Your task to perform on an android device: See recent photos Image 0: 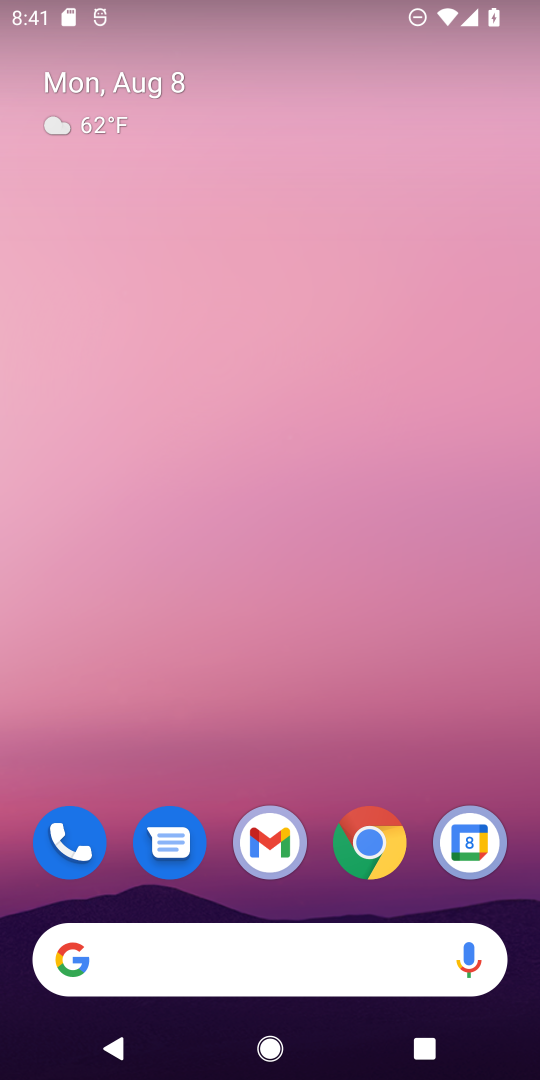
Step 0: drag from (315, 655) to (411, 8)
Your task to perform on an android device: See recent photos Image 1: 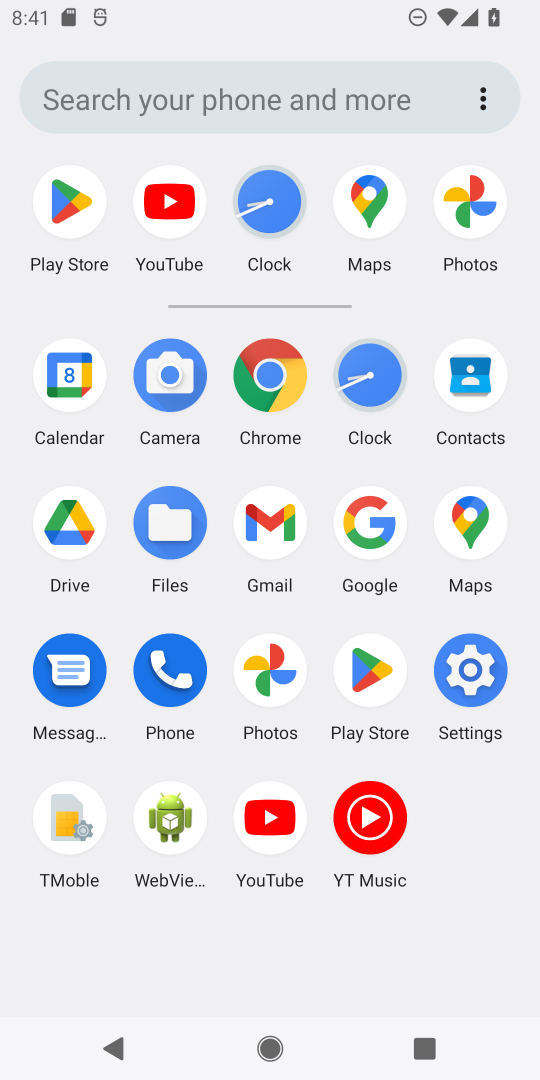
Step 1: click (271, 670)
Your task to perform on an android device: See recent photos Image 2: 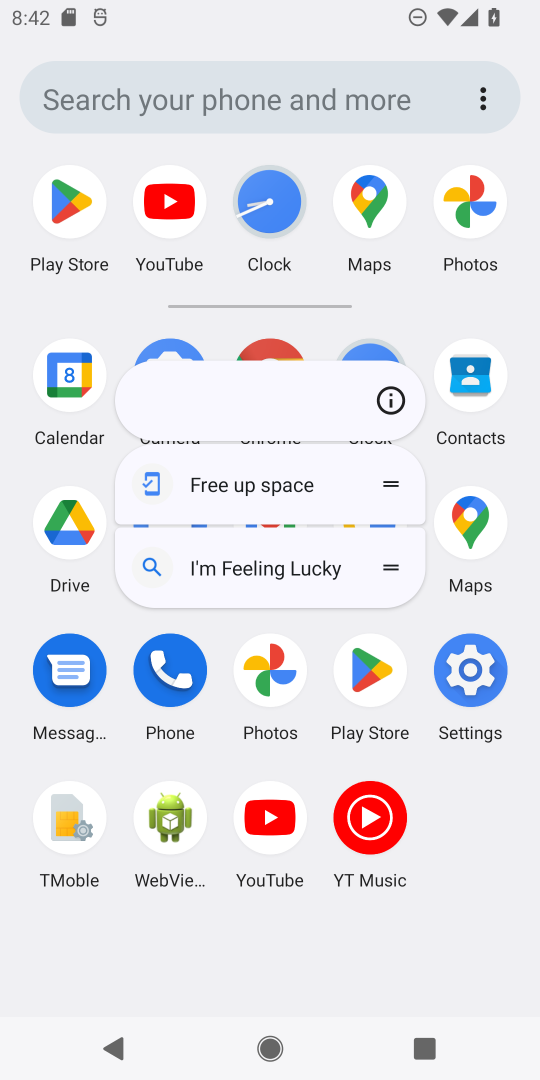
Step 2: click (271, 672)
Your task to perform on an android device: See recent photos Image 3: 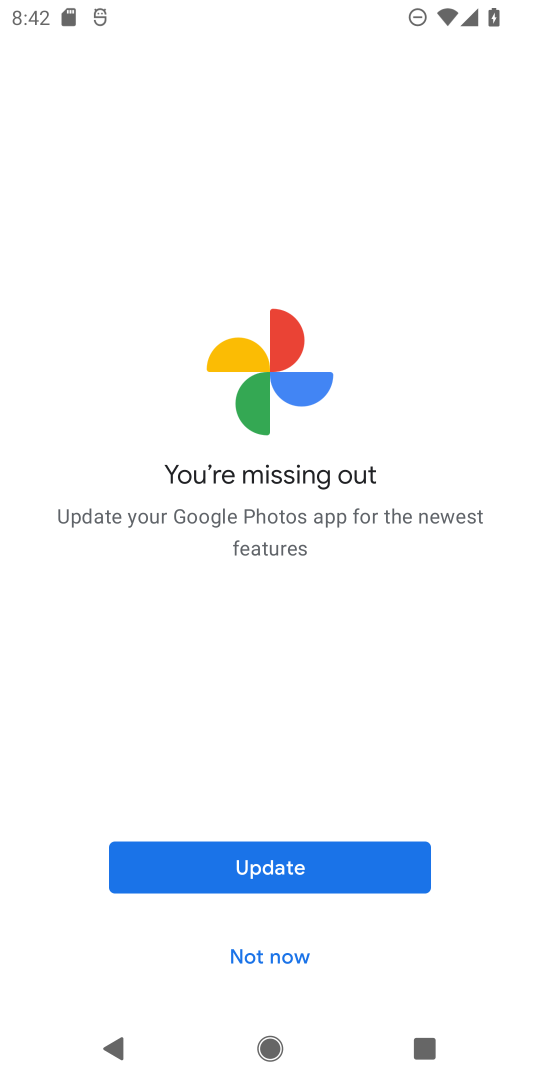
Step 3: click (293, 869)
Your task to perform on an android device: See recent photos Image 4: 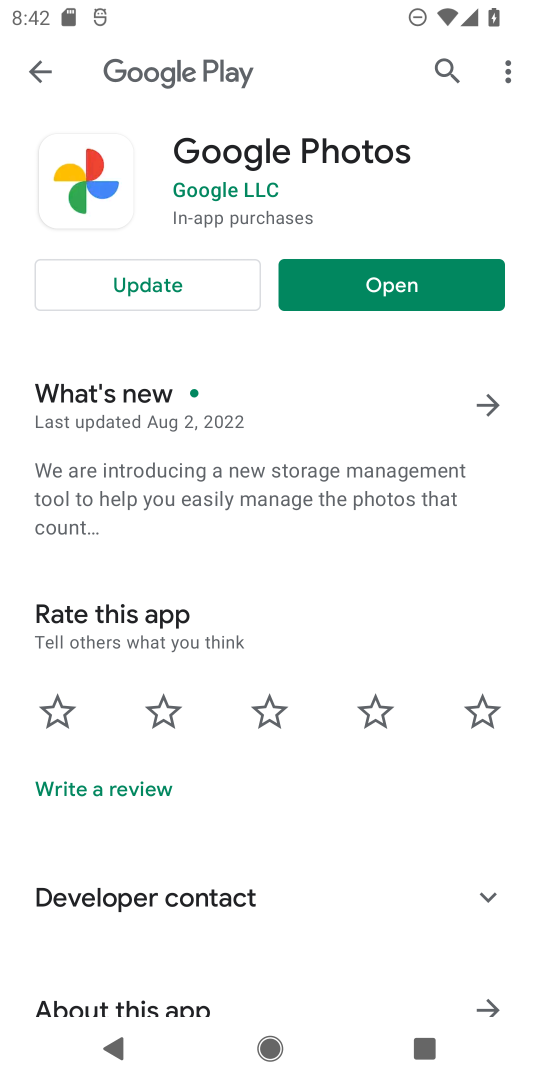
Step 4: click (448, 296)
Your task to perform on an android device: See recent photos Image 5: 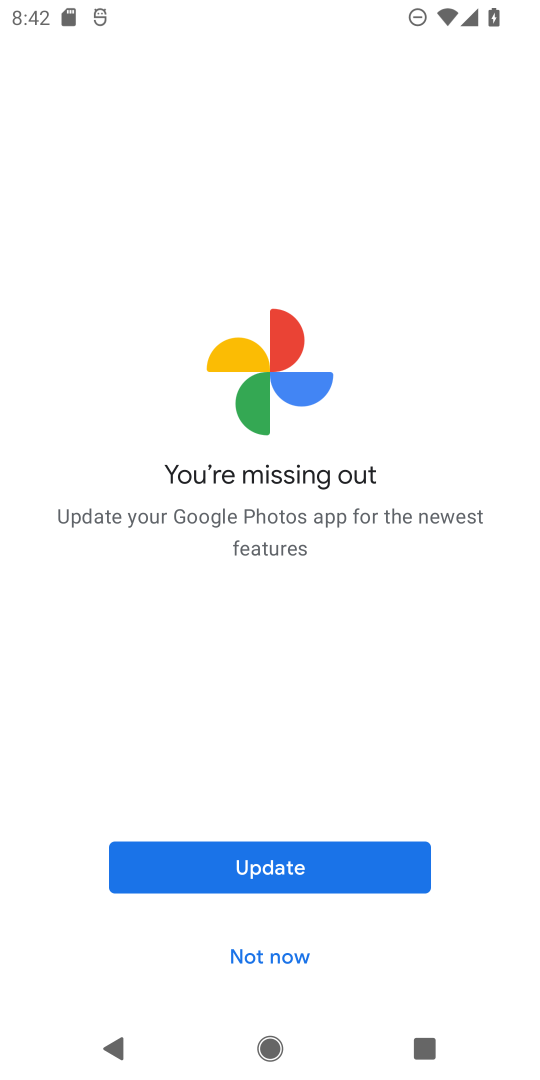
Step 5: click (267, 949)
Your task to perform on an android device: See recent photos Image 6: 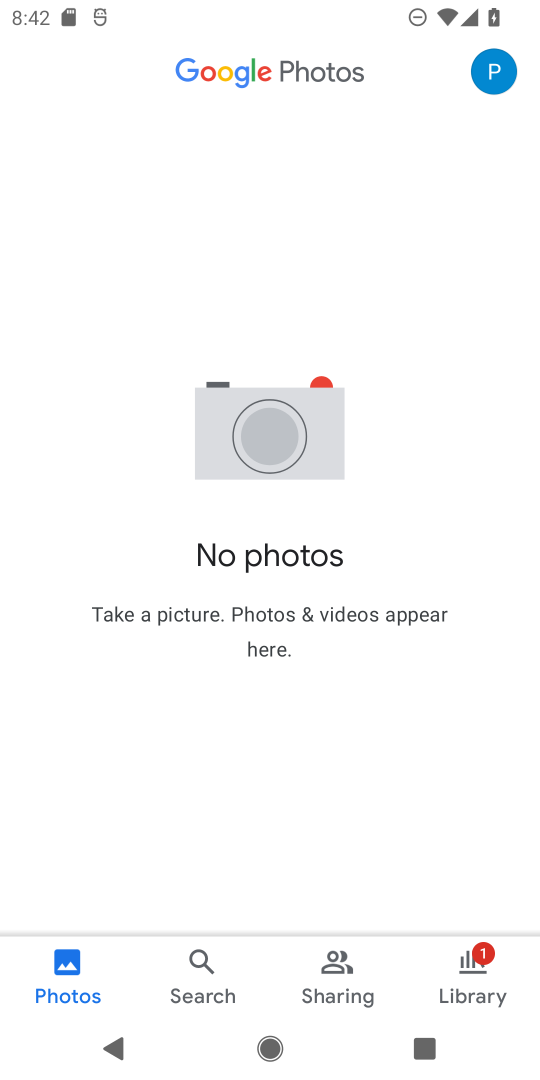
Step 6: task complete